Your task to perform on an android device: Go to Google maps Image 0: 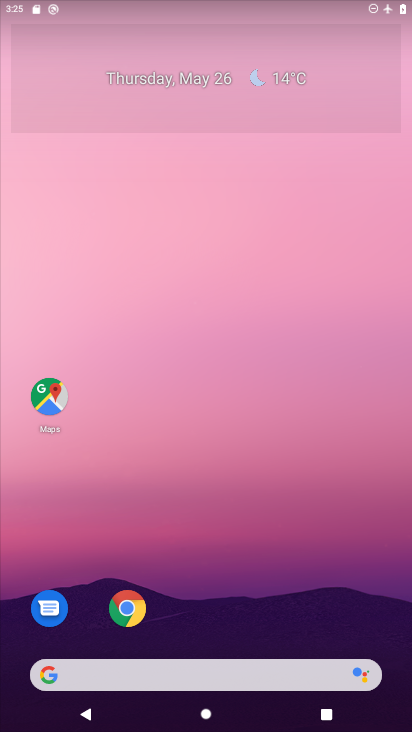
Step 0: drag from (376, 469) to (407, 68)
Your task to perform on an android device: Go to Google maps Image 1: 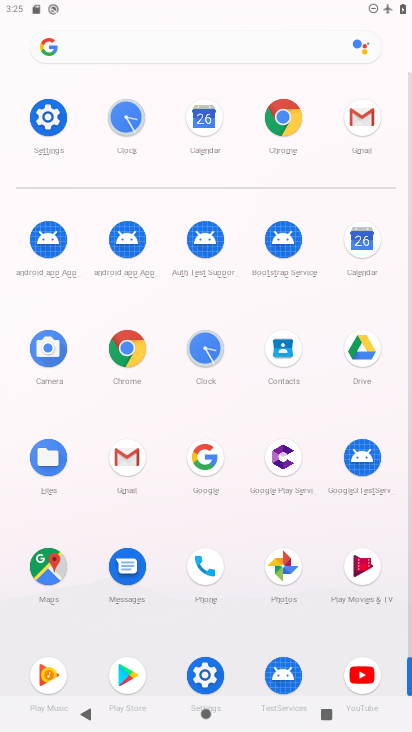
Step 1: click (41, 555)
Your task to perform on an android device: Go to Google maps Image 2: 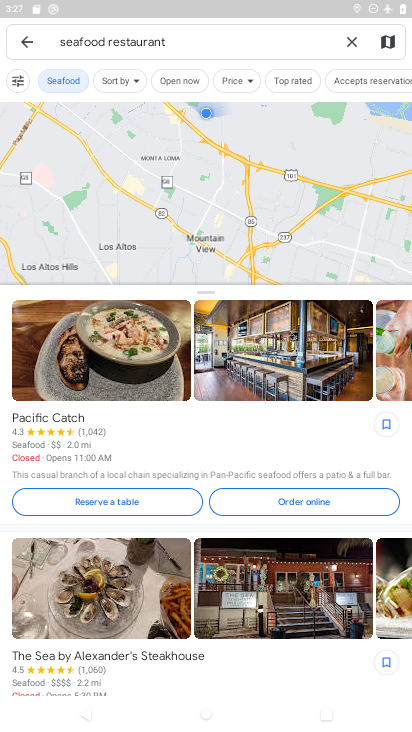
Step 2: task complete